Your task to perform on an android device: Open settings on Google Maps Image 0: 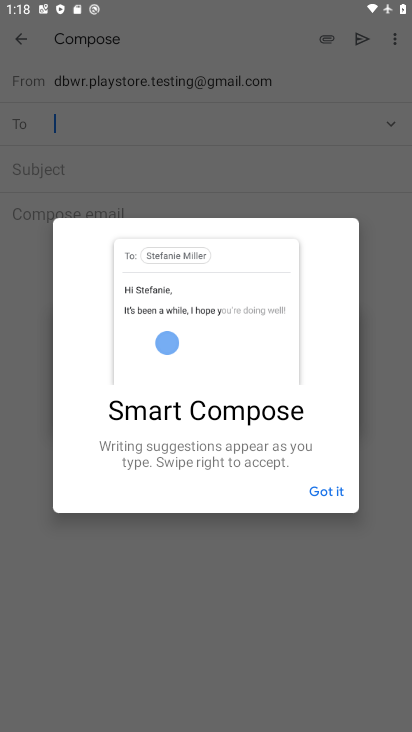
Step 0: press home button
Your task to perform on an android device: Open settings on Google Maps Image 1: 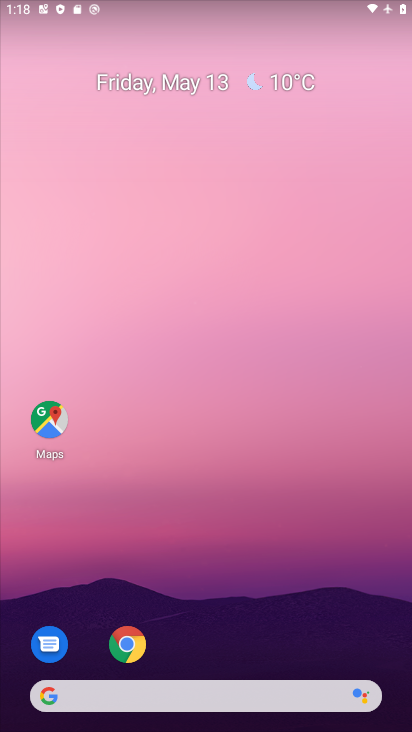
Step 1: drag from (213, 728) to (227, 98)
Your task to perform on an android device: Open settings on Google Maps Image 2: 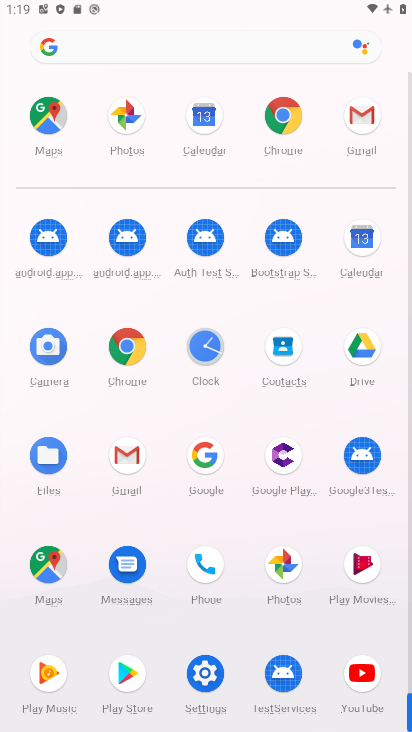
Step 2: click (39, 113)
Your task to perform on an android device: Open settings on Google Maps Image 3: 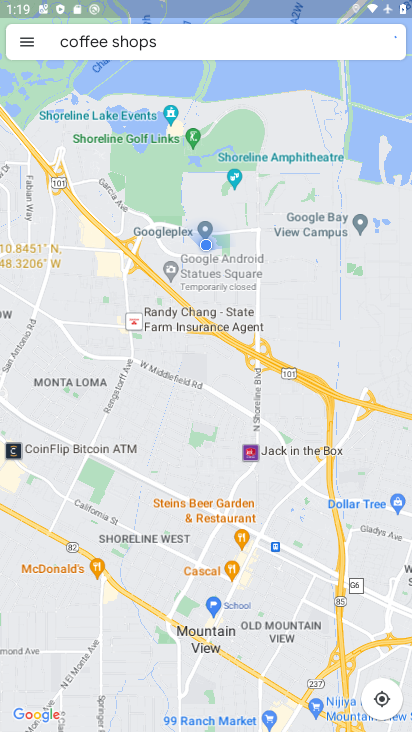
Step 3: click (25, 42)
Your task to perform on an android device: Open settings on Google Maps Image 4: 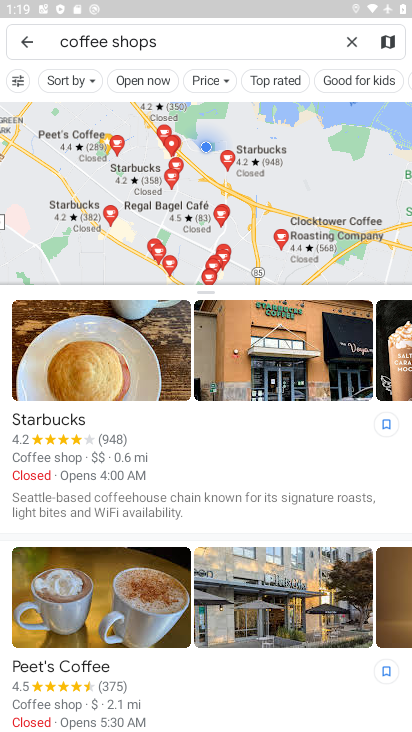
Step 4: click (24, 39)
Your task to perform on an android device: Open settings on Google Maps Image 5: 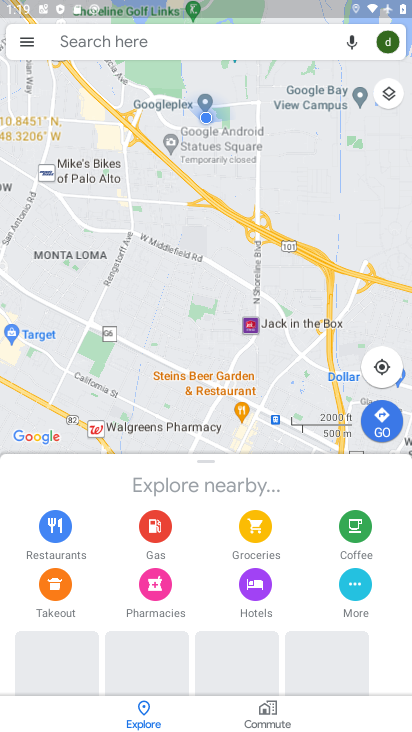
Step 5: click (25, 41)
Your task to perform on an android device: Open settings on Google Maps Image 6: 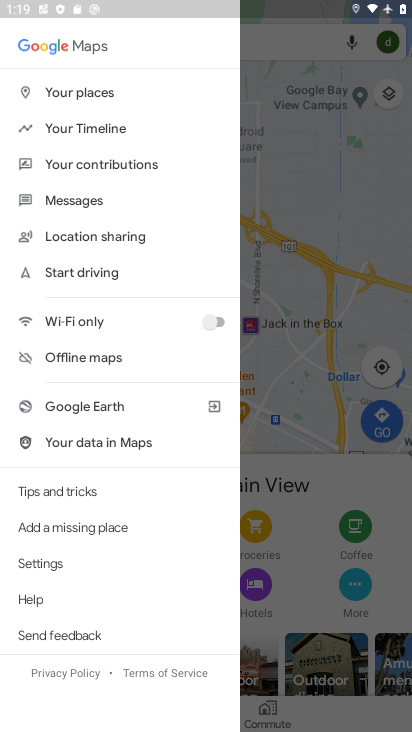
Step 6: click (45, 561)
Your task to perform on an android device: Open settings on Google Maps Image 7: 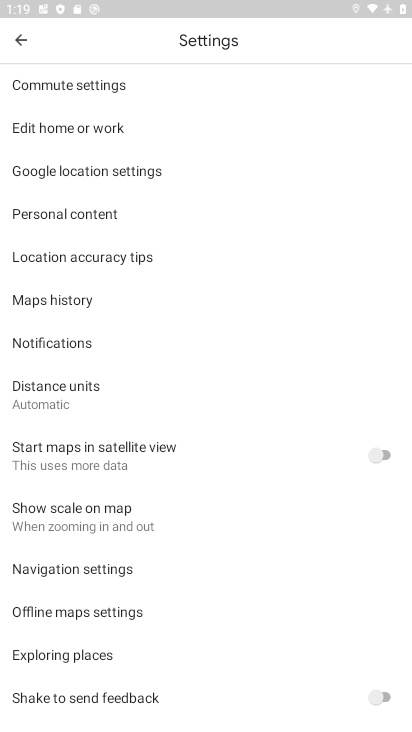
Step 7: task complete